Your task to perform on an android device: toggle javascript in the chrome app Image 0: 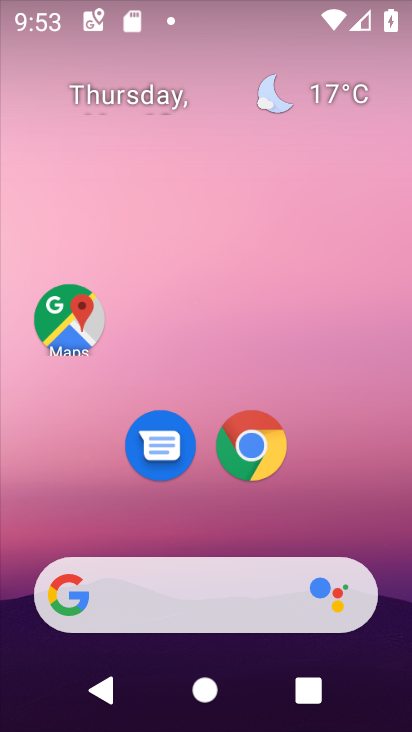
Step 0: drag from (251, 530) to (224, 227)
Your task to perform on an android device: toggle javascript in the chrome app Image 1: 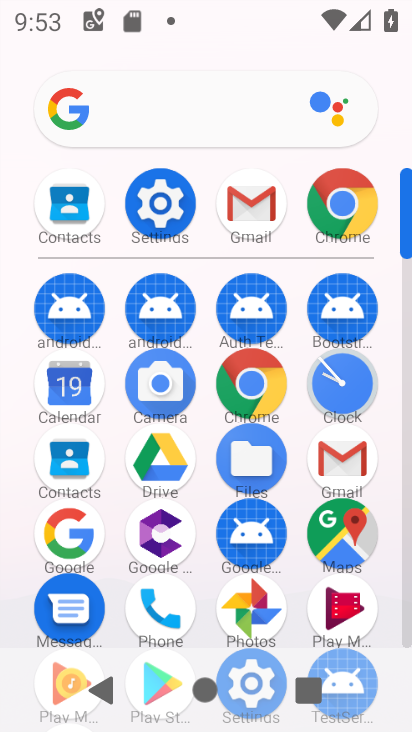
Step 1: click (262, 399)
Your task to perform on an android device: toggle javascript in the chrome app Image 2: 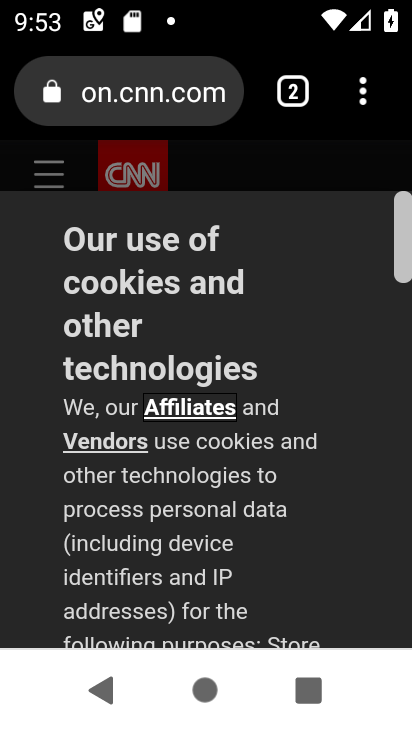
Step 2: click (358, 108)
Your task to perform on an android device: toggle javascript in the chrome app Image 3: 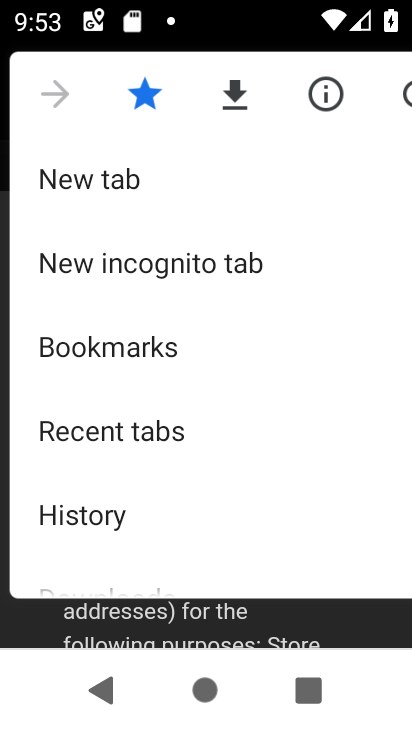
Step 3: drag from (153, 494) to (211, 261)
Your task to perform on an android device: toggle javascript in the chrome app Image 4: 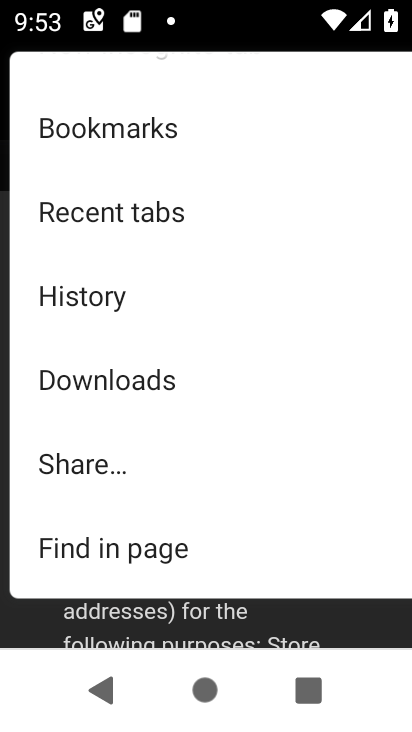
Step 4: drag from (206, 496) to (247, 268)
Your task to perform on an android device: toggle javascript in the chrome app Image 5: 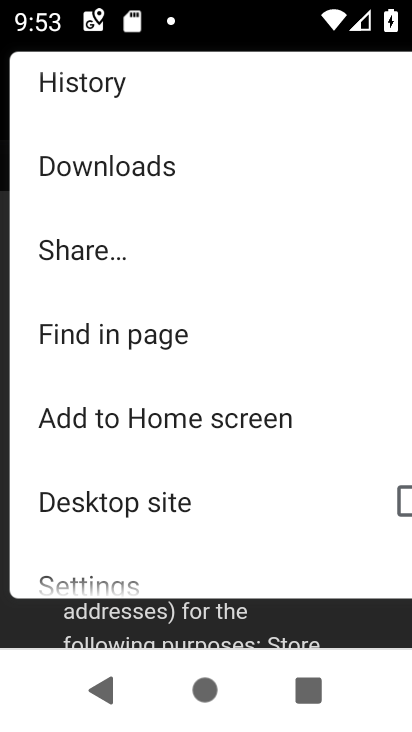
Step 5: drag from (166, 552) to (207, 308)
Your task to perform on an android device: toggle javascript in the chrome app Image 6: 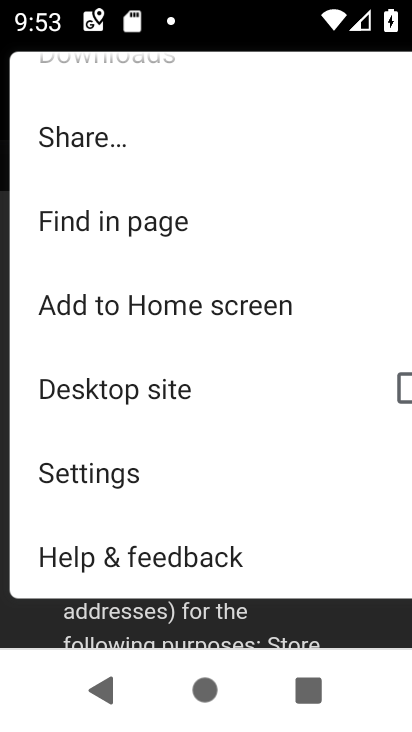
Step 6: click (165, 477)
Your task to perform on an android device: toggle javascript in the chrome app Image 7: 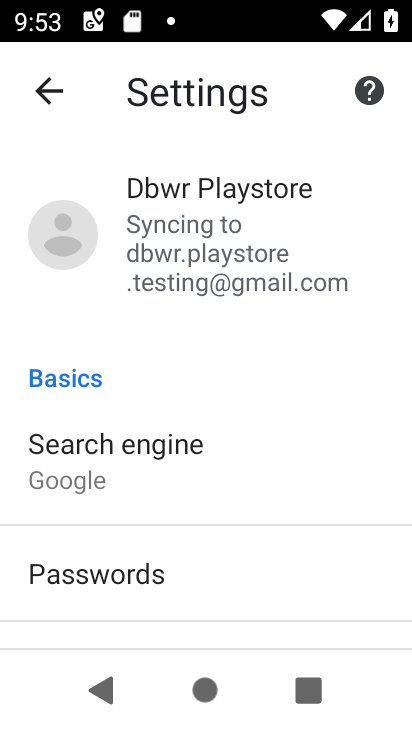
Step 7: drag from (221, 540) to (270, 250)
Your task to perform on an android device: toggle javascript in the chrome app Image 8: 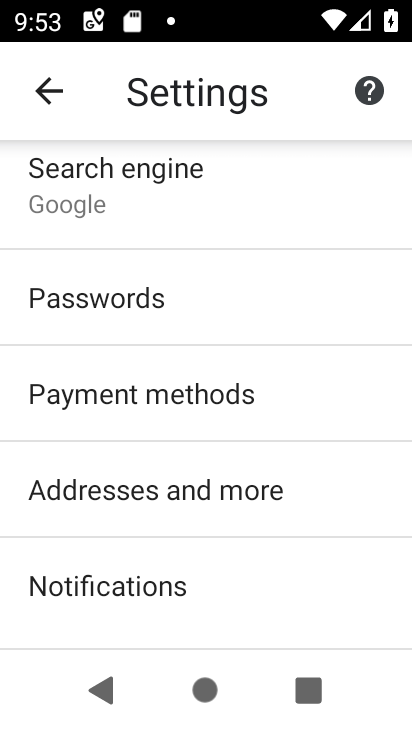
Step 8: drag from (247, 496) to (257, 278)
Your task to perform on an android device: toggle javascript in the chrome app Image 9: 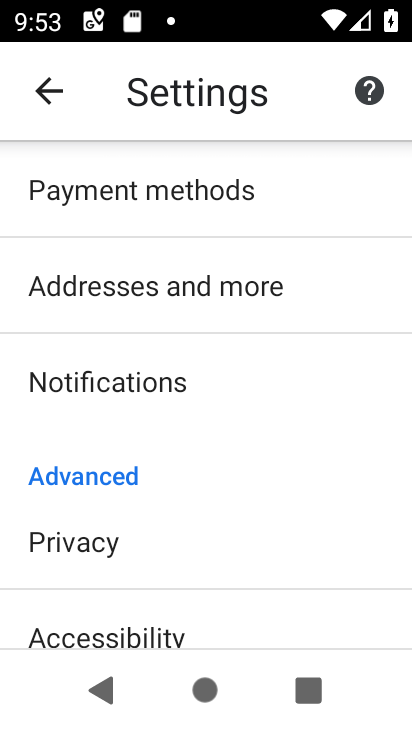
Step 9: drag from (214, 552) to (199, 335)
Your task to perform on an android device: toggle javascript in the chrome app Image 10: 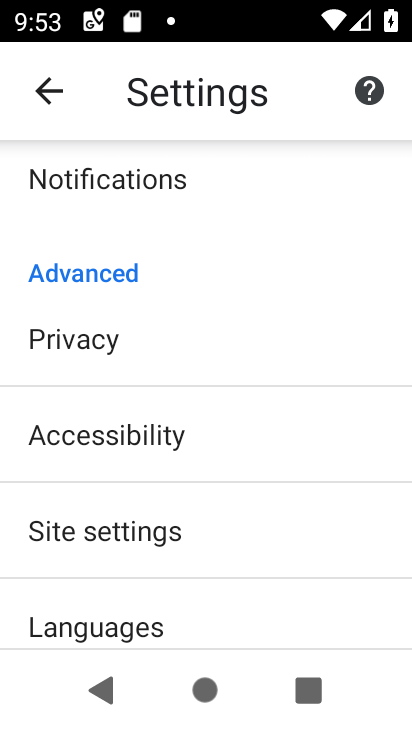
Step 10: click (162, 538)
Your task to perform on an android device: toggle javascript in the chrome app Image 11: 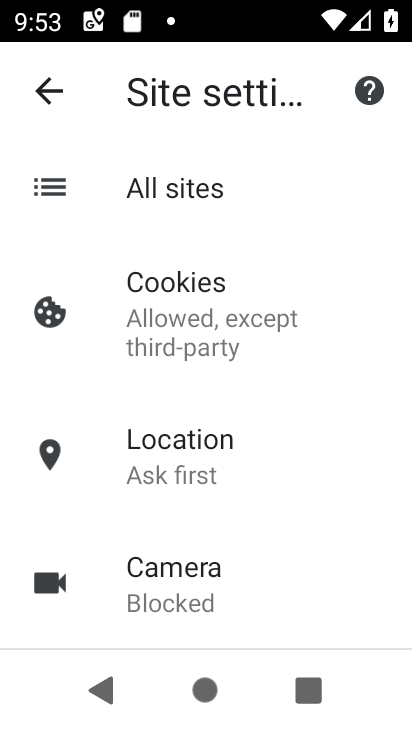
Step 11: drag from (181, 566) to (220, 311)
Your task to perform on an android device: toggle javascript in the chrome app Image 12: 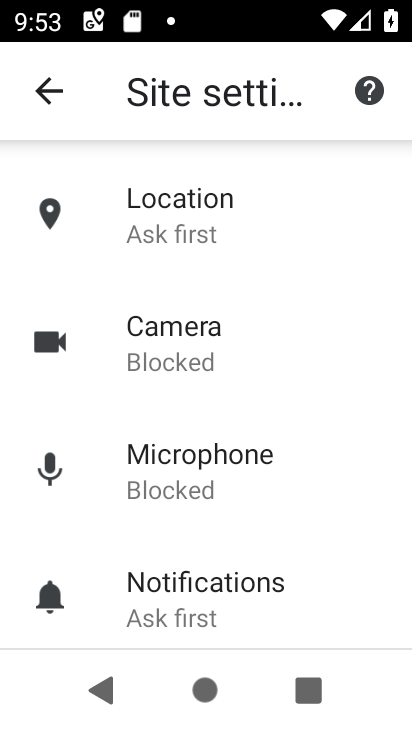
Step 12: drag from (262, 594) to (300, 362)
Your task to perform on an android device: toggle javascript in the chrome app Image 13: 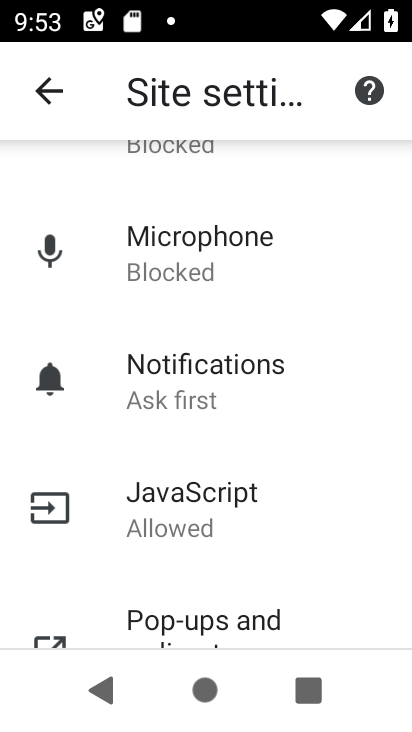
Step 13: click (271, 504)
Your task to perform on an android device: toggle javascript in the chrome app Image 14: 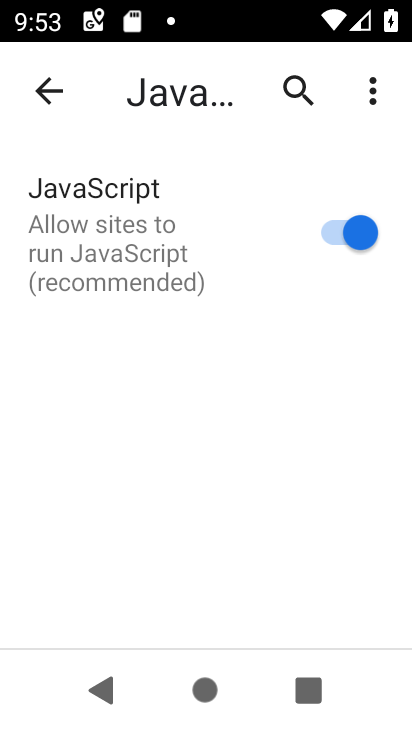
Step 14: click (340, 252)
Your task to perform on an android device: toggle javascript in the chrome app Image 15: 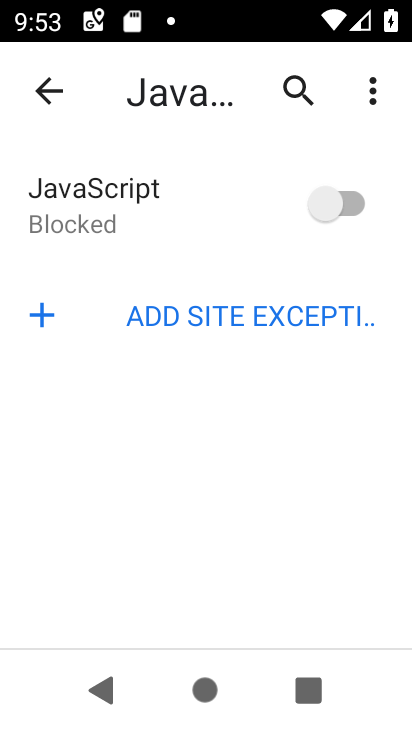
Step 15: task complete